Your task to perform on an android device: all mails in gmail Image 0: 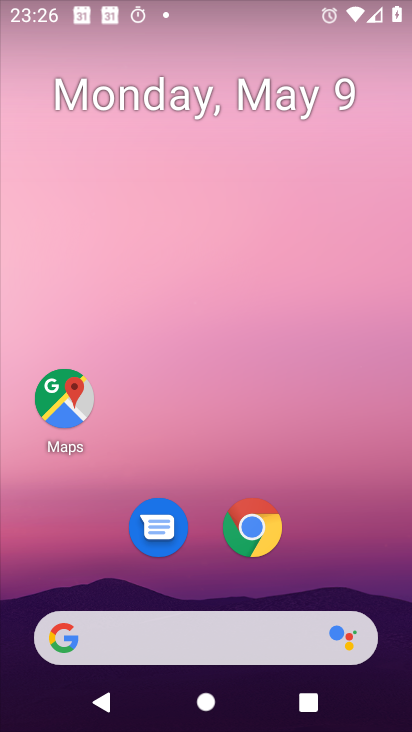
Step 0: drag from (324, 483) to (345, 3)
Your task to perform on an android device: all mails in gmail Image 1: 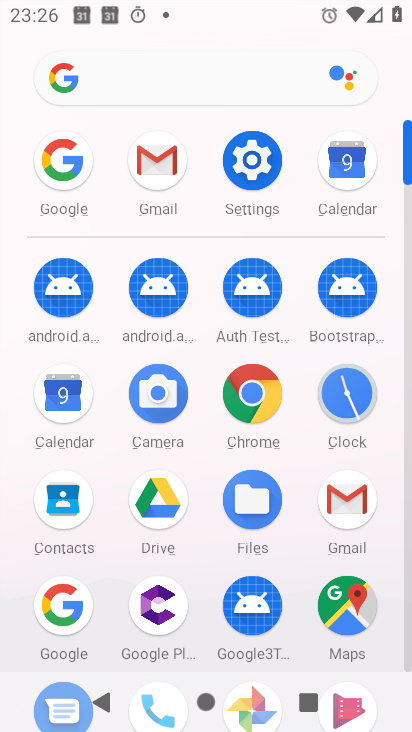
Step 1: click (155, 155)
Your task to perform on an android device: all mails in gmail Image 2: 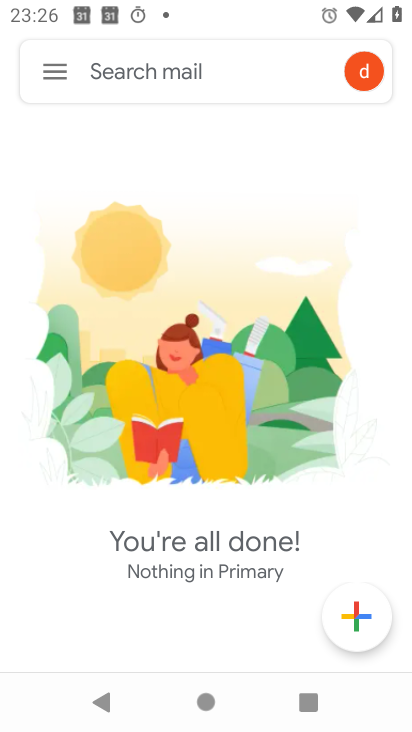
Step 2: click (40, 71)
Your task to perform on an android device: all mails in gmail Image 3: 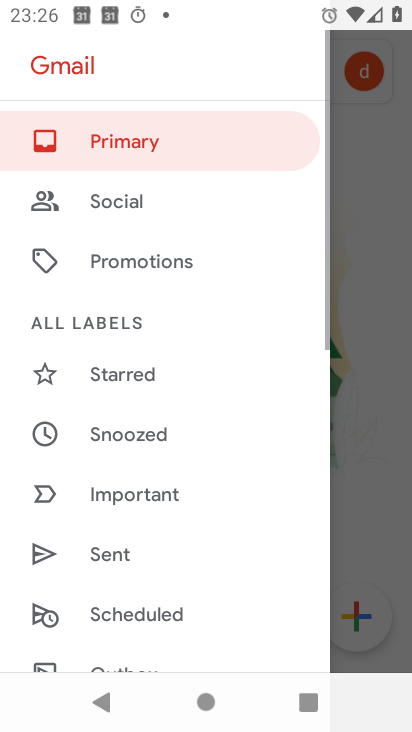
Step 3: drag from (136, 584) to (198, 205)
Your task to perform on an android device: all mails in gmail Image 4: 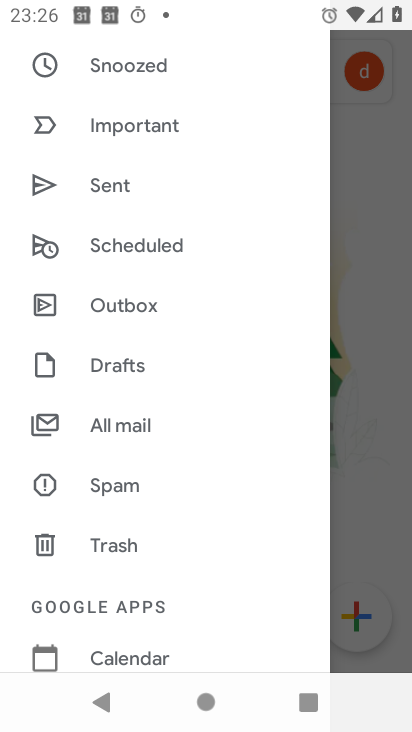
Step 4: click (131, 431)
Your task to perform on an android device: all mails in gmail Image 5: 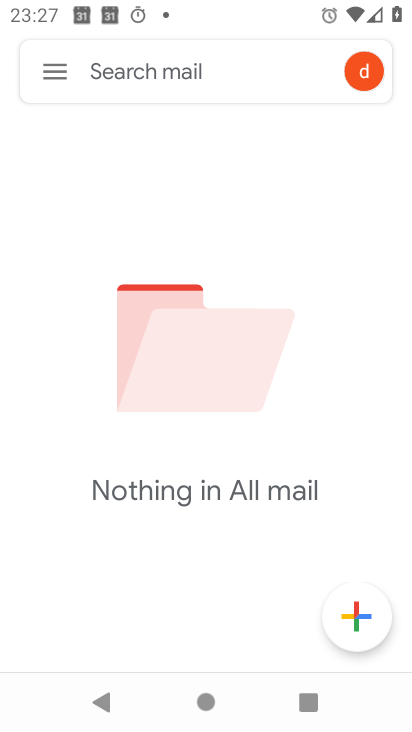
Step 5: task complete